Your task to perform on an android device: Open Android settings Image 0: 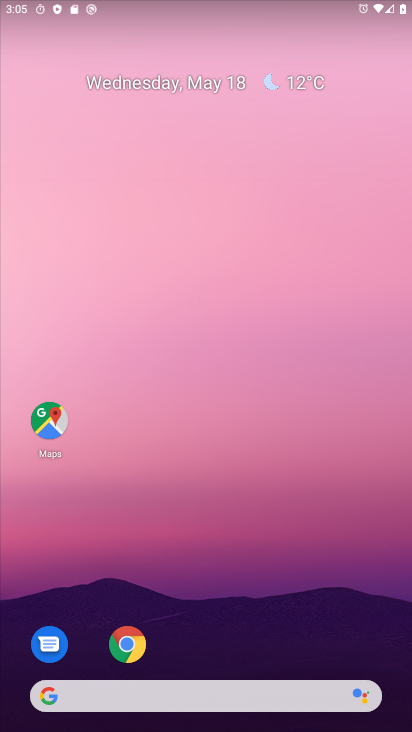
Step 0: click (391, 427)
Your task to perform on an android device: Open Android settings Image 1: 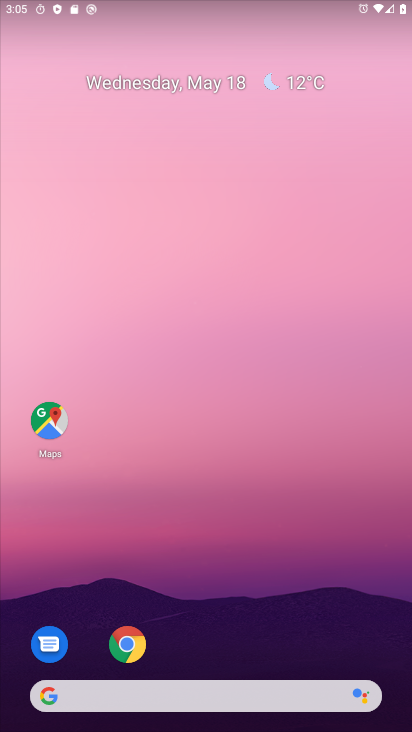
Step 1: drag from (374, 354) to (239, 7)
Your task to perform on an android device: Open Android settings Image 2: 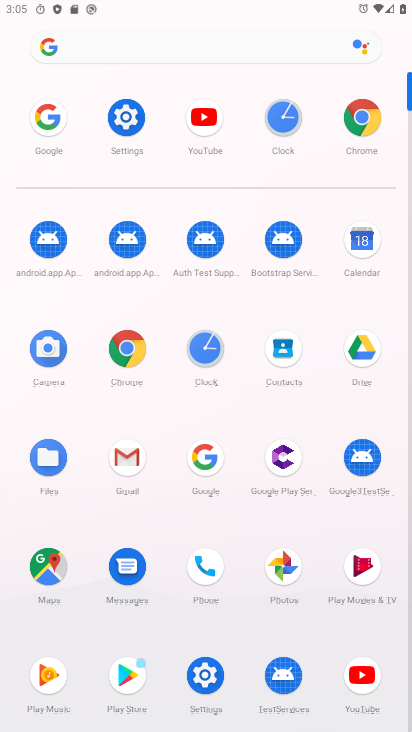
Step 2: click (119, 110)
Your task to perform on an android device: Open Android settings Image 3: 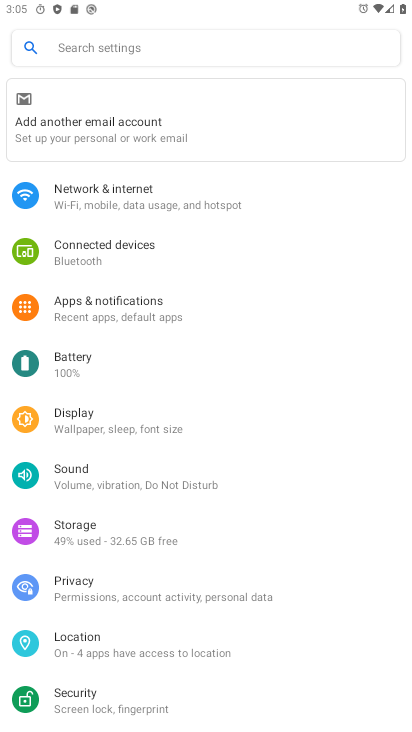
Step 3: task complete